Your task to perform on an android device: Open Google Chrome and click the shortcut for Amazon.com Image 0: 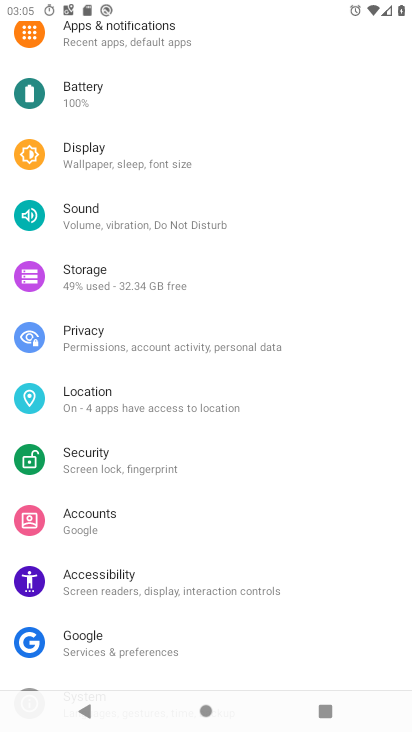
Step 0: press home button
Your task to perform on an android device: Open Google Chrome and click the shortcut for Amazon.com Image 1: 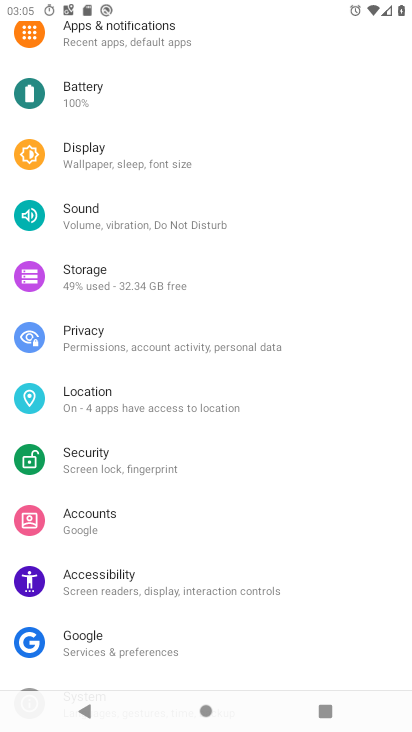
Step 1: press home button
Your task to perform on an android device: Open Google Chrome and click the shortcut for Amazon.com Image 2: 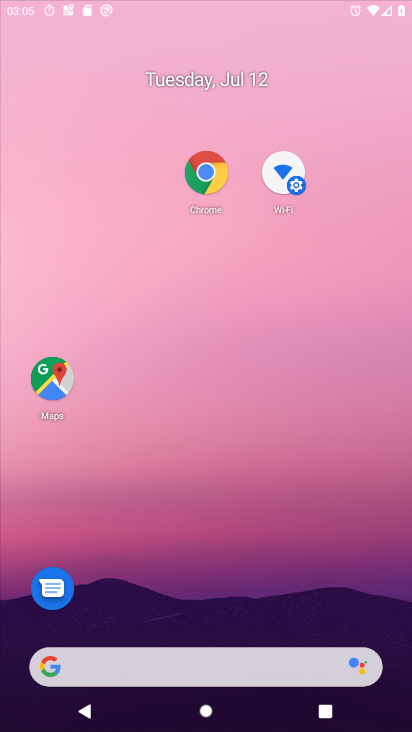
Step 2: press home button
Your task to perform on an android device: Open Google Chrome and click the shortcut for Amazon.com Image 3: 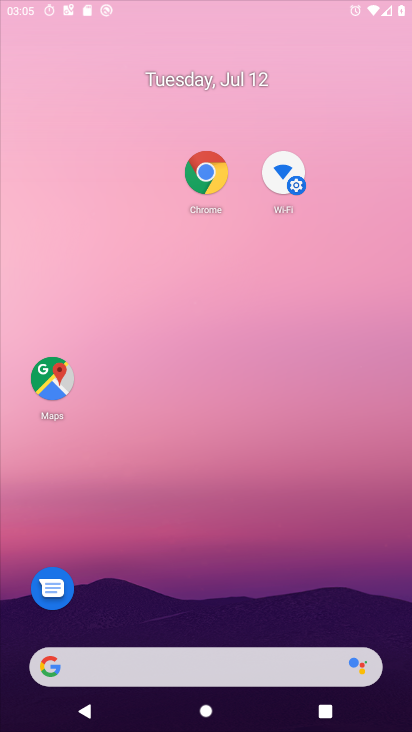
Step 3: drag from (294, 342) to (388, 124)
Your task to perform on an android device: Open Google Chrome and click the shortcut for Amazon.com Image 4: 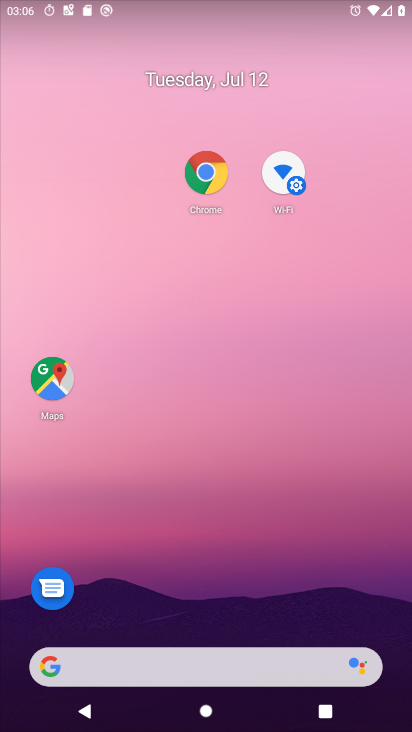
Step 4: drag from (206, 591) to (263, 8)
Your task to perform on an android device: Open Google Chrome and click the shortcut for Amazon.com Image 5: 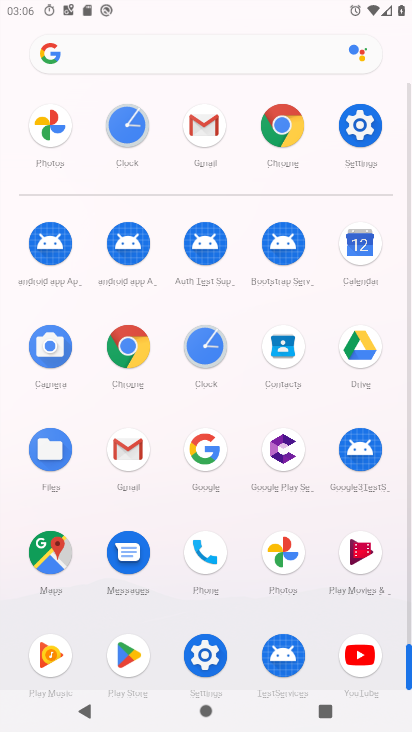
Step 5: click (125, 336)
Your task to perform on an android device: Open Google Chrome and click the shortcut for Amazon.com Image 6: 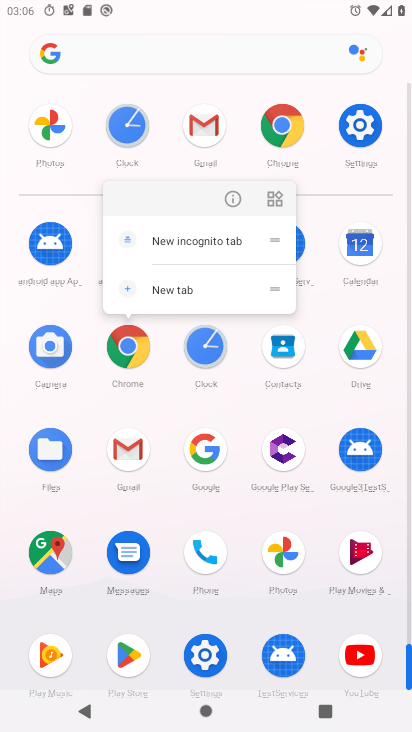
Step 6: click (231, 193)
Your task to perform on an android device: Open Google Chrome and click the shortcut for Amazon.com Image 7: 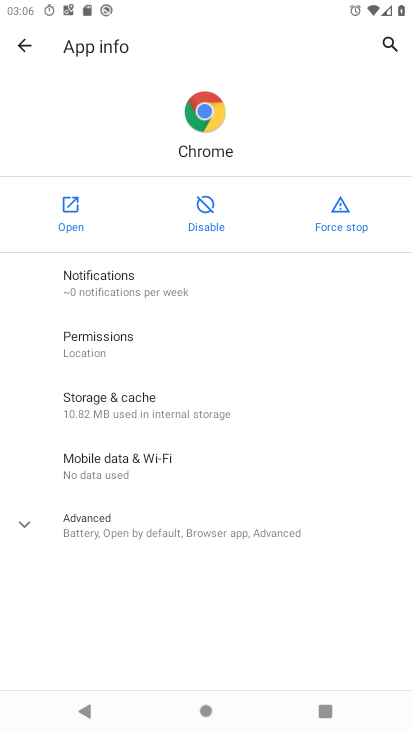
Step 7: click (68, 203)
Your task to perform on an android device: Open Google Chrome and click the shortcut for Amazon.com Image 8: 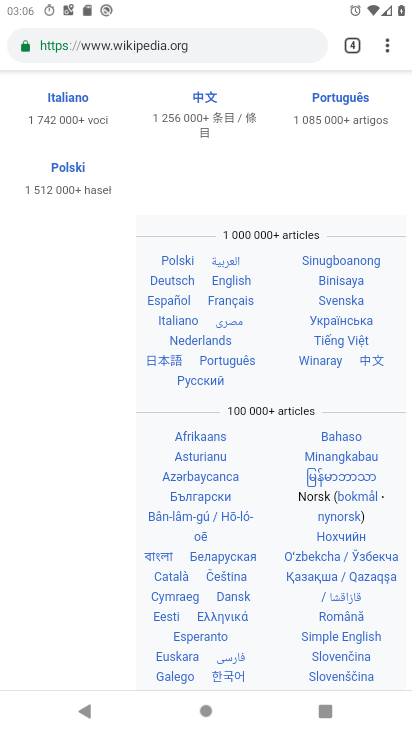
Step 8: drag from (189, 185) to (288, 726)
Your task to perform on an android device: Open Google Chrome and click the shortcut for Amazon.com Image 9: 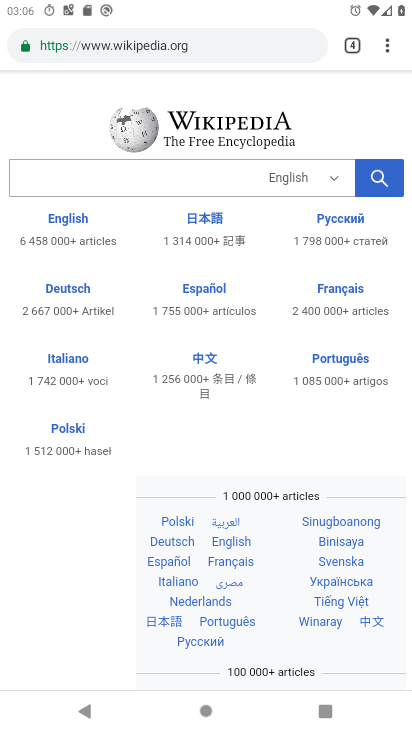
Step 9: click (347, 51)
Your task to perform on an android device: Open Google Chrome and click the shortcut for Amazon.com Image 10: 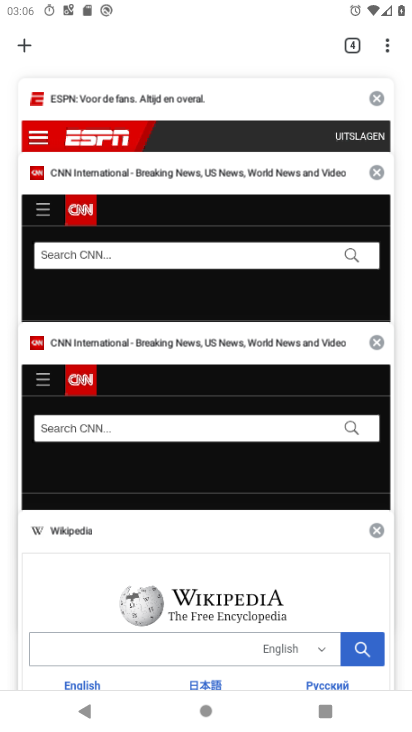
Step 10: click (22, 44)
Your task to perform on an android device: Open Google Chrome and click the shortcut for Amazon.com Image 11: 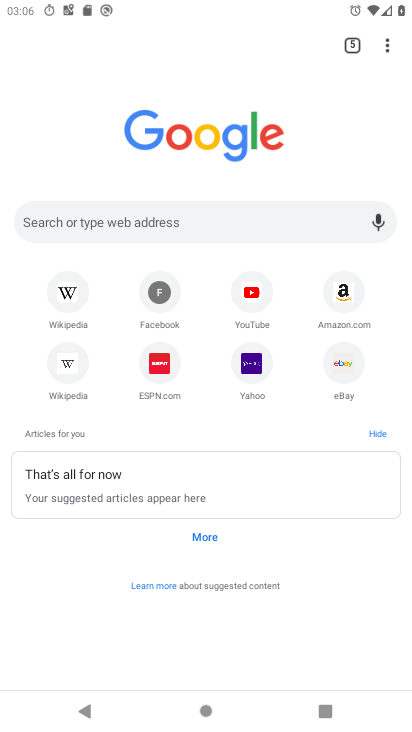
Step 11: click (344, 298)
Your task to perform on an android device: Open Google Chrome and click the shortcut for Amazon.com Image 12: 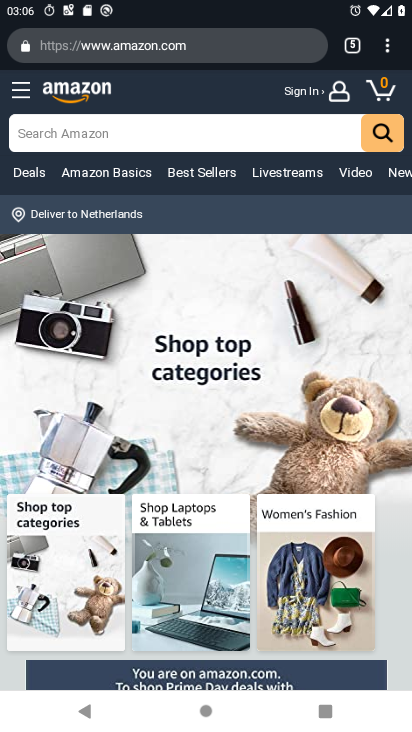
Step 12: task complete